Your task to perform on an android device: open the mobile data screen to see how much data has been used Image 0: 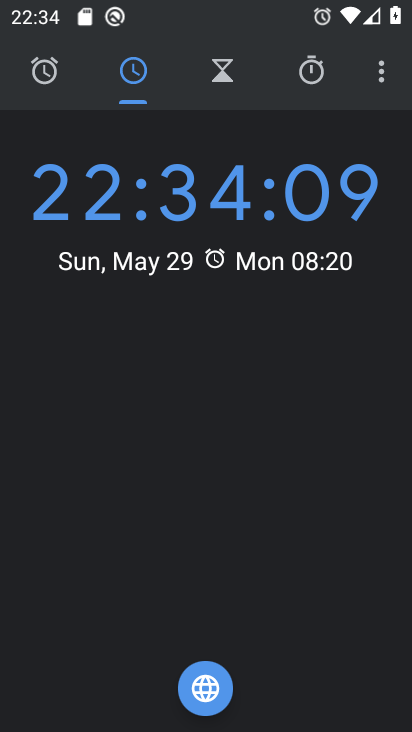
Step 0: press home button
Your task to perform on an android device: open the mobile data screen to see how much data has been used Image 1: 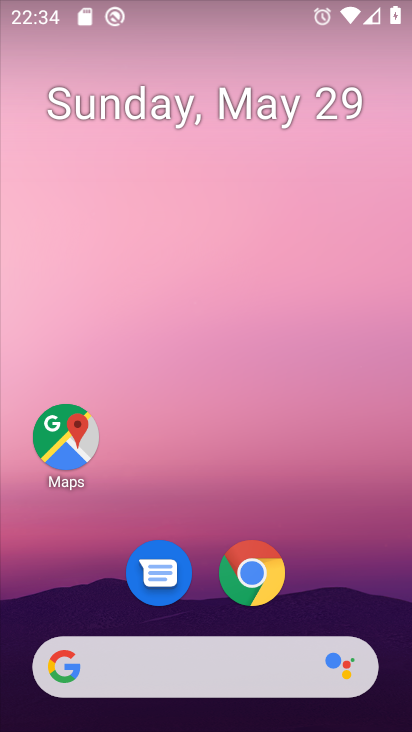
Step 1: drag from (281, 447) to (245, 0)
Your task to perform on an android device: open the mobile data screen to see how much data has been used Image 2: 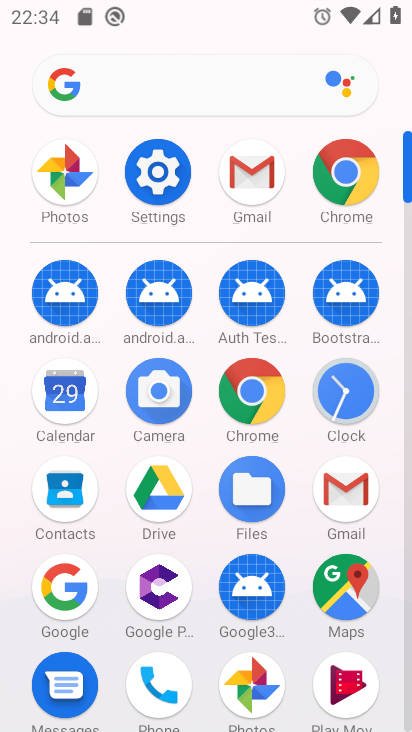
Step 2: click (168, 171)
Your task to perform on an android device: open the mobile data screen to see how much data has been used Image 3: 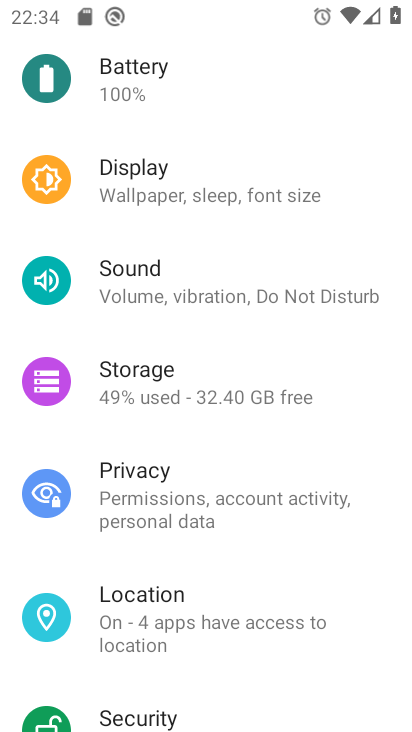
Step 3: drag from (218, 236) to (219, 683)
Your task to perform on an android device: open the mobile data screen to see how much data has been used Image 4: 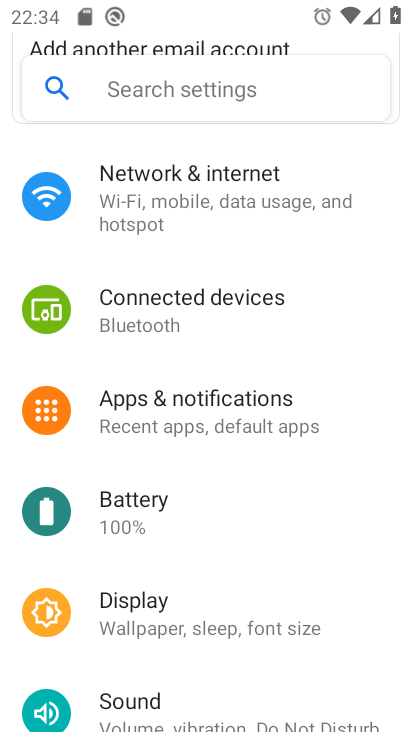
Step 4: click (240, 187)
Your task to perform on an android device: open the mobile data screen to see how much data has been used Image 5: 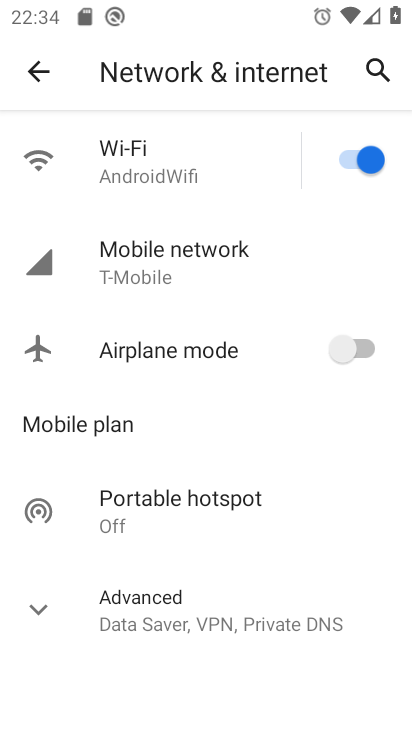
Step 5: click (224, 251)
Your task to perform on an android device: open the mobile data screen to see how much data has been used Image 6: 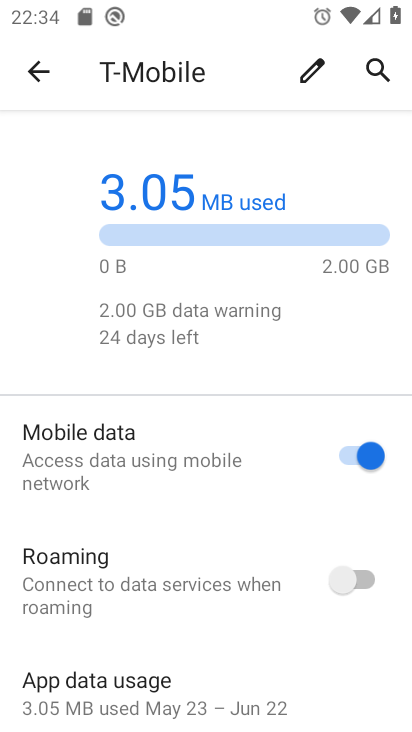
Step 6: task complete